Your task to perform on an android device: change notifications settings Image 0: 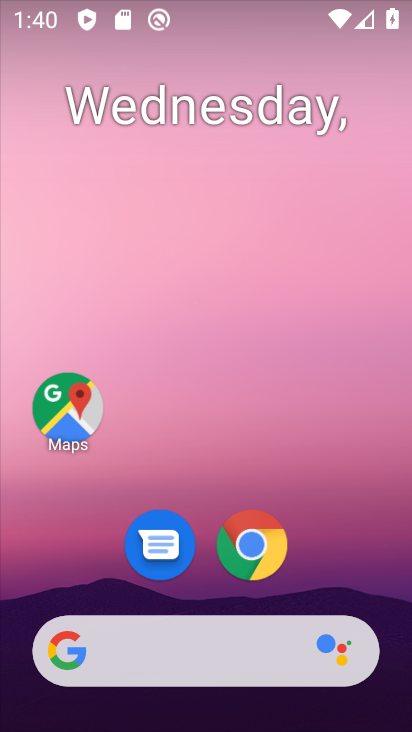
Step 0: drag from (348, 511) to (315, 66)
Your task to perform on an android device: change notifications settings Image 1: 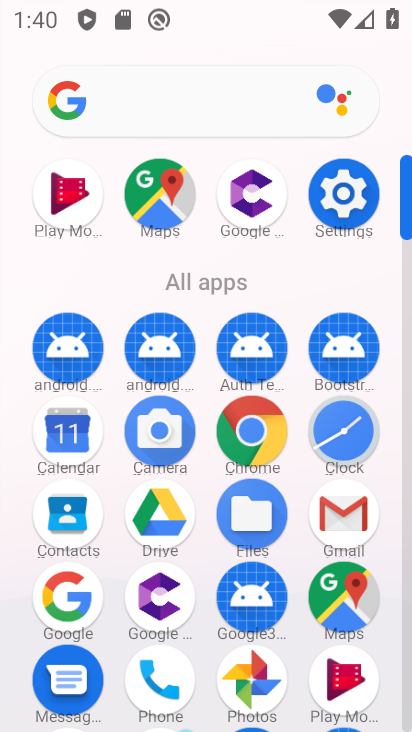
Step 1: click (352, 190)
Your task to perform on an android device: change notifications settings Image 2: 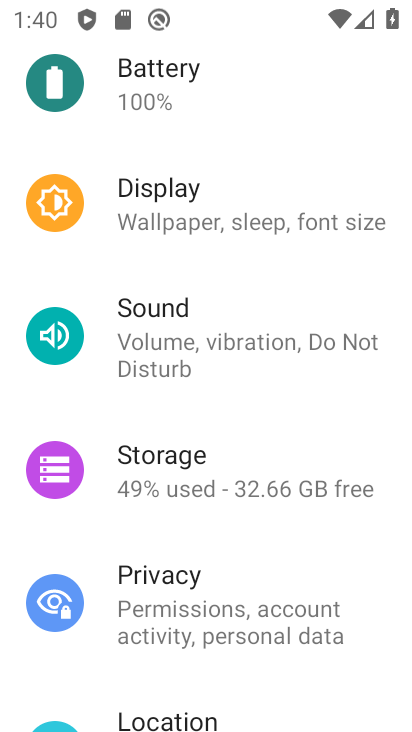
Step 2: drag from (289, 180) to (283, 578)
Your task to perform on an android device: change notifications settings Image 3: 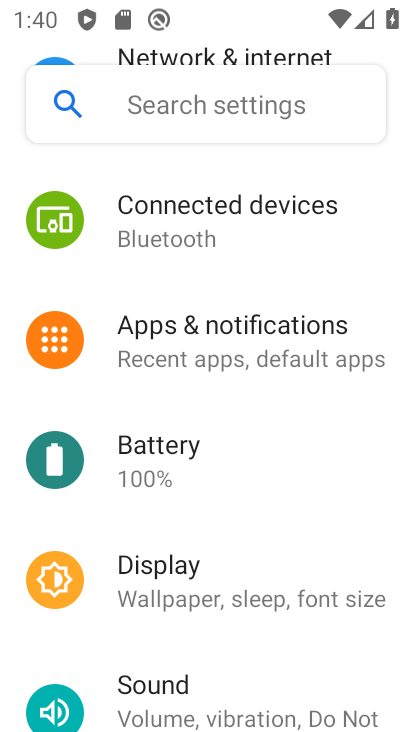
Step 3: drag from (308, 263) to (280, 510)
Your task to perform on an android device: change notifications settings Image 4: 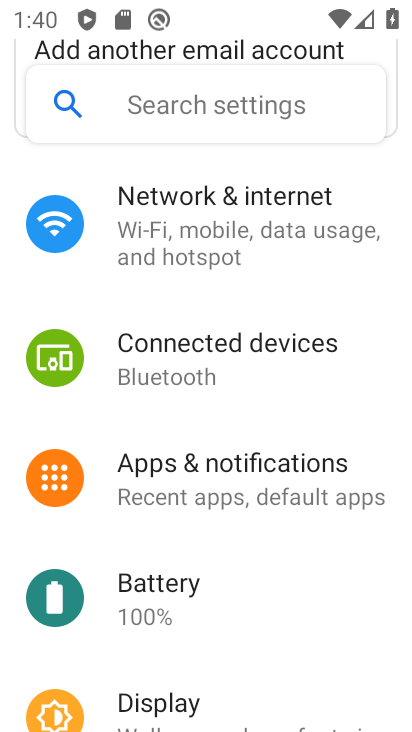
Step 4: click (276, 505)
Your task to perform on an android device: change notifications settings Image 5: 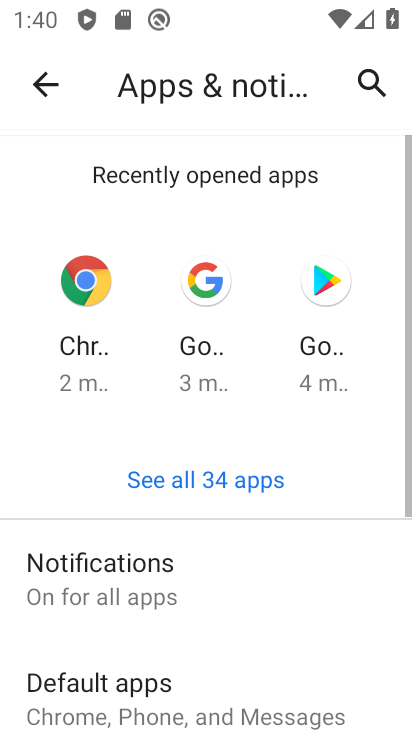
Step 5: task complete